Your task to perform on an android device: When is my next meeting? Image 0: 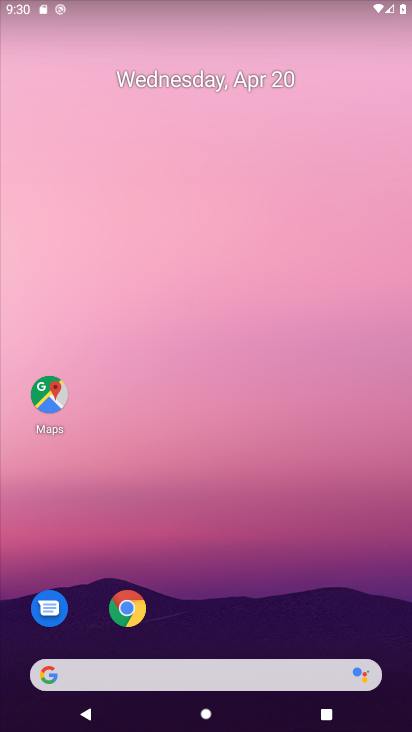
Step 0: drag from (210, 605) to (194, 76)
Your task to perform on an android device: When is my next meeting? Image 1: 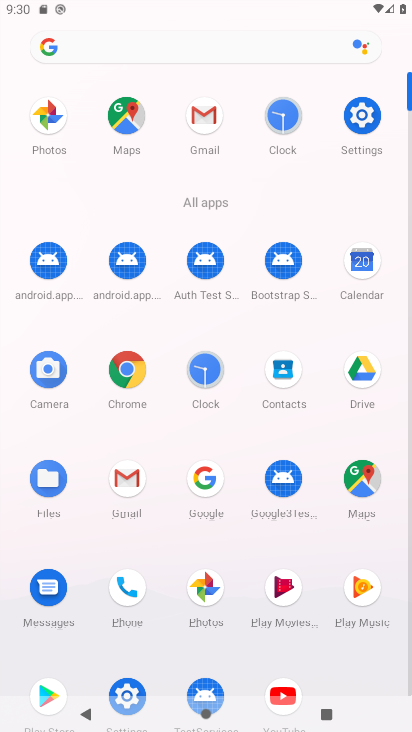
Step 1: click (377, 270)
Your task to perform on an android device: When is my next meeting? Image 2: 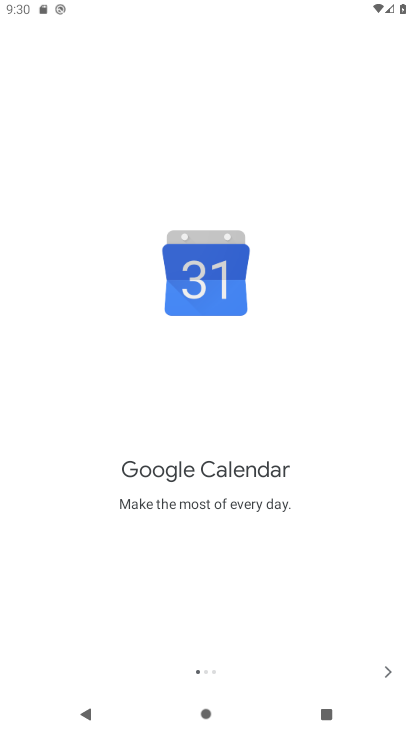
Step 2: click (392, 673)
Your task to perform on an android device: When is my next meeting? Image 3: 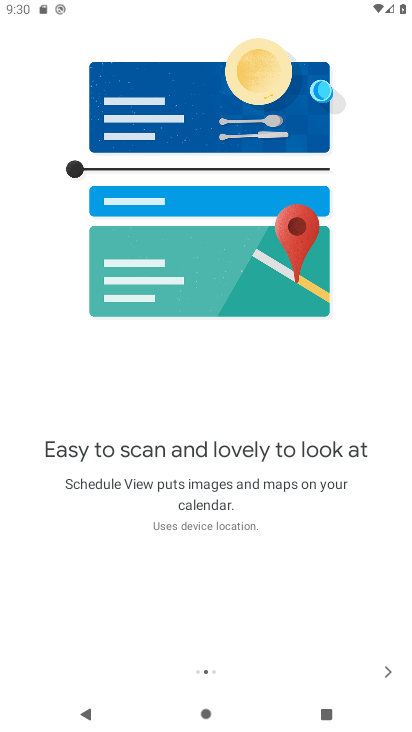
Step 3: click (391, 670)
Your task to perform on an android device: When is my next meeting? Image 4: 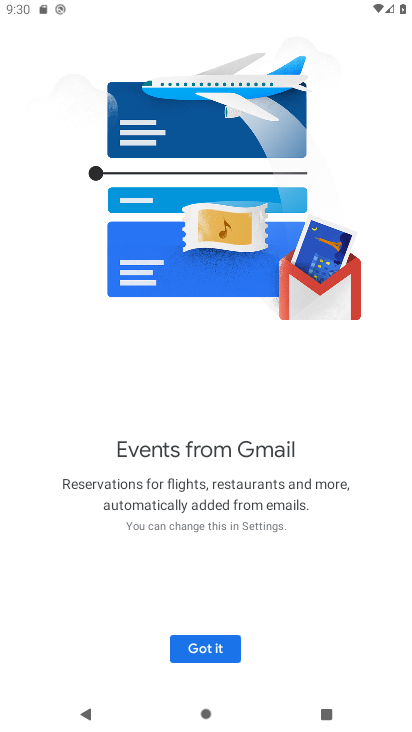
Step 4: click (186, 646)
Your task to perform on an android device: When is my next meeting? Image 5: 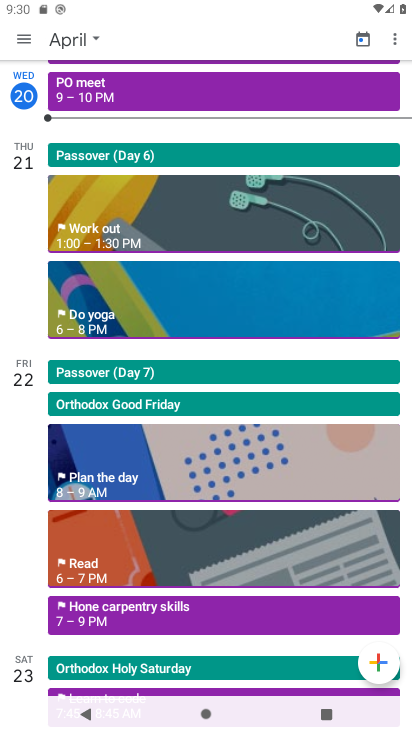
Step 5: click (71, 36)
Your task to perform on an android device: When is my next meeting? Image 6: 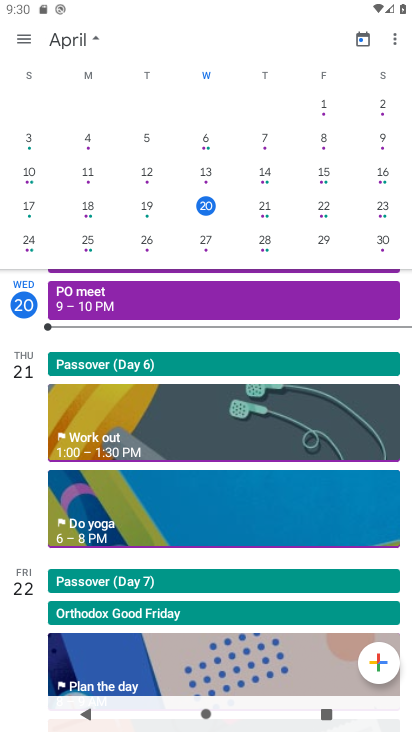
Step 6: click (259, 211)
Your task to perform on an android device: When is my next meeting? Image 7: 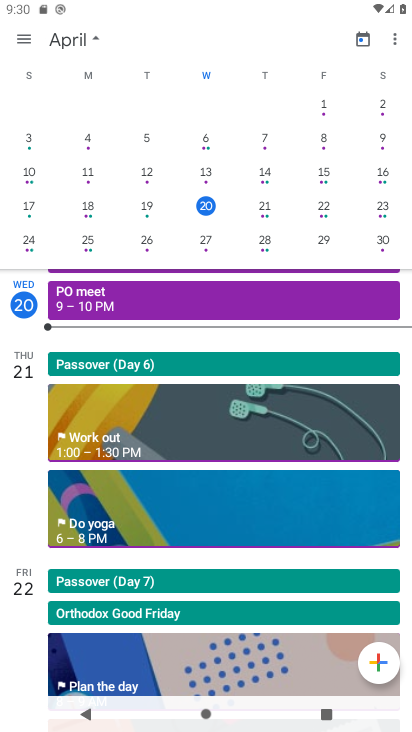
Step 7: click (96, 303)
Your task to perform on an android device: When is my next meeting? Image 8: 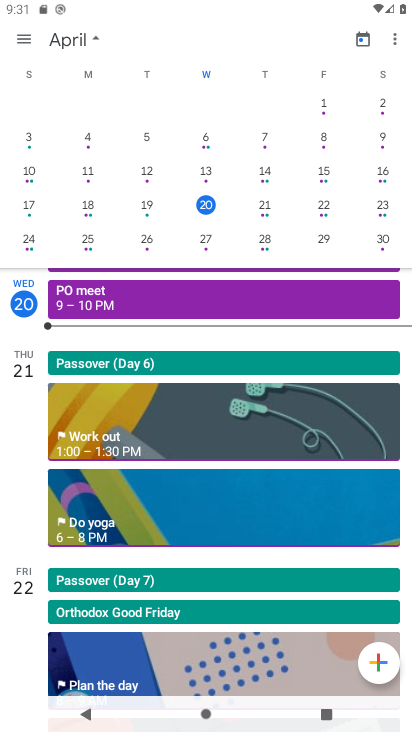
Step 8: task complete